Your task to perform on an android device: Open notification settings Image 0: 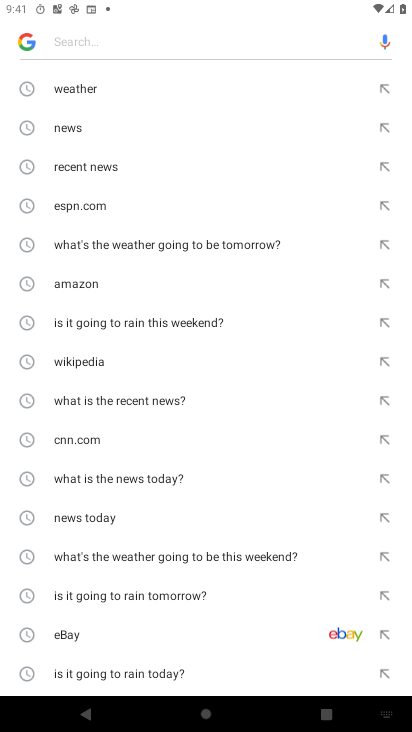
Step 0: press home button
Your task to perform on an android device: Open notification settings Image 1: 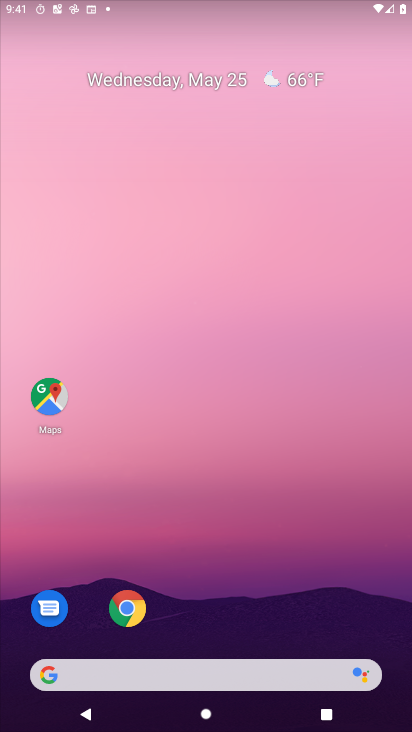
Step 1: drag from (231, 727) to (235, 110)
Your task to perform on an android device: Open notification settings Image 2: 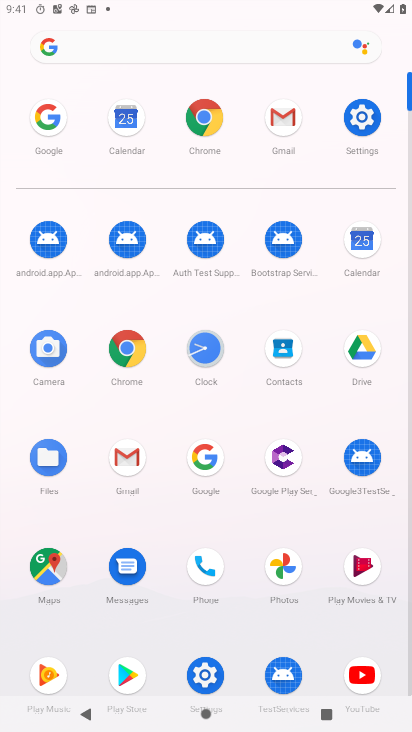
Step 2: click (361, 126)
Your task to perform on an android device: Open notification settings Image 3: 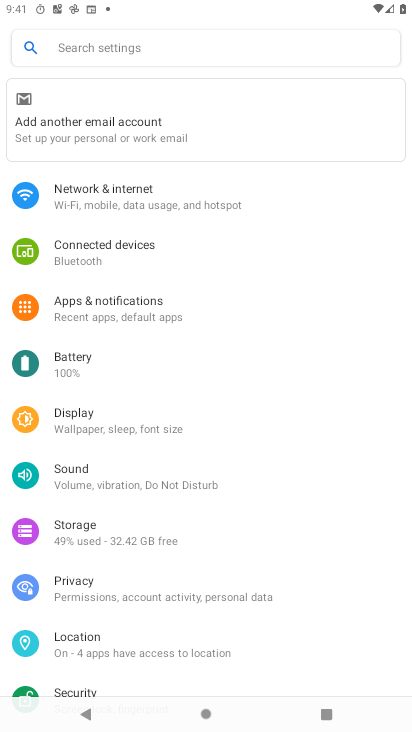
Step 3: click (104, 305)
Your task to perform on an android device: Open notification settings Image 4: 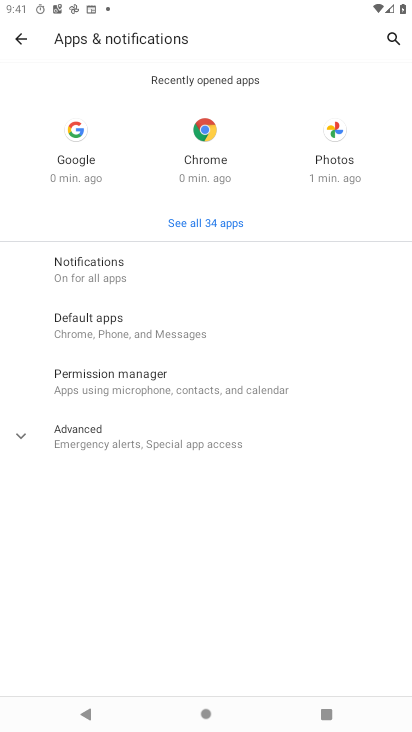
Step 4: click (70, 265)
Your task to perform on an android device: Open notification settings Image 5: 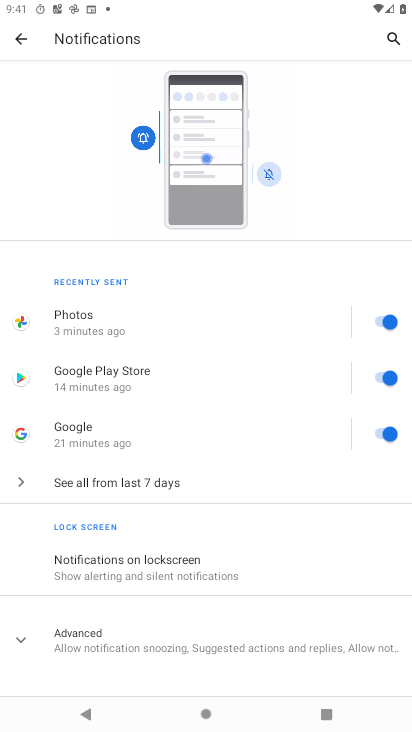
Step 5: click (149, 638)
Your task to perform on an android device: Open notification settings Image 6: 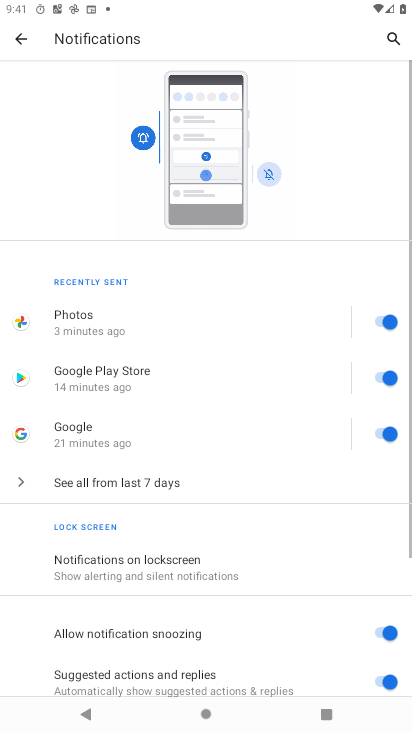
Step 6: drag from (190, 626) to (170, 257)
Your task to perform on an android device: Open notification settings Image 7: 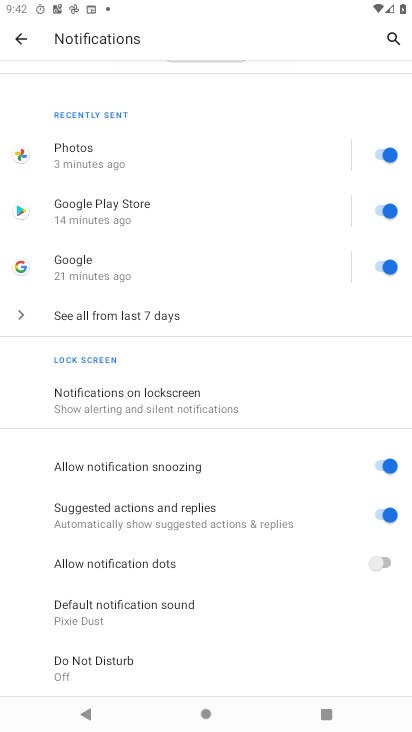
Step 7: click (382, 459)
Your task to perform on an android device: Open notification settings Image 8: 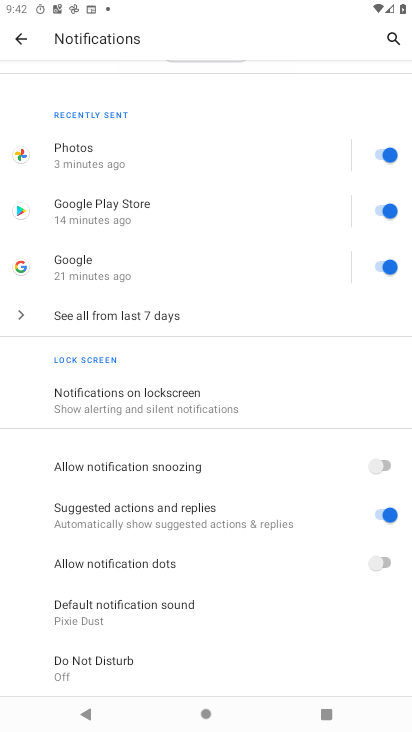
Step 8: task complete